Your task to perform on an android device: toggle javascript in the chrome app Image 0: 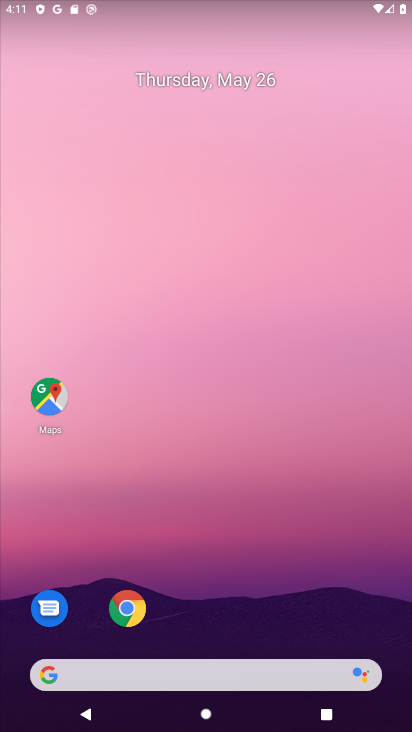
Step 0: drag from (280, 648) to (258, 117)
Your task to perform on an android device: toggle javascript in the chrome app Image 1: 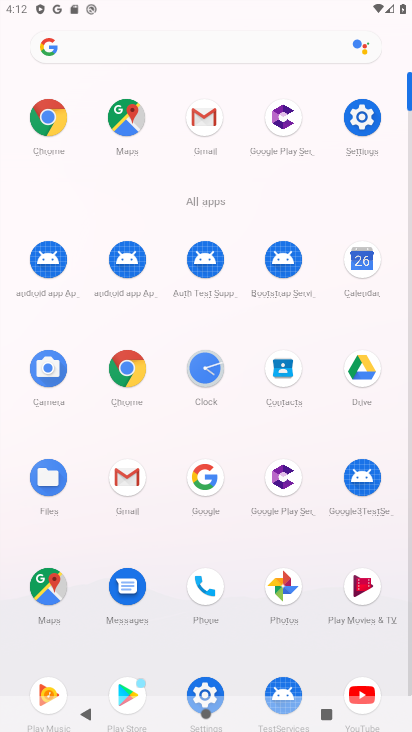
Step 1: click (132, 360)
Your task to perform on an android device: toggle javascript in the chrome app Image 2: 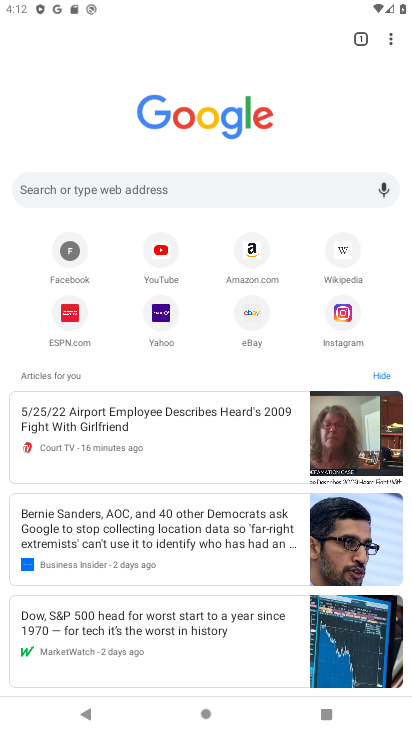
Step 2: click (395, 48)
Your task to perform on an android device: toggle javascript in the chrome app Image 3: 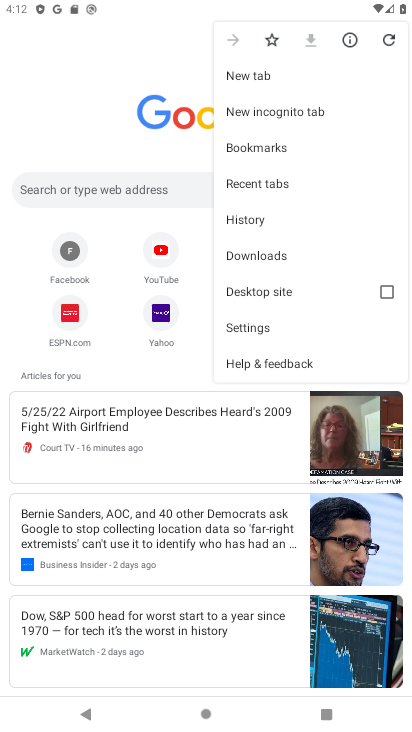
Step 3: click (264, 320)
Your task to perform on an android device: toggle javascript in the chrome app Image 4: 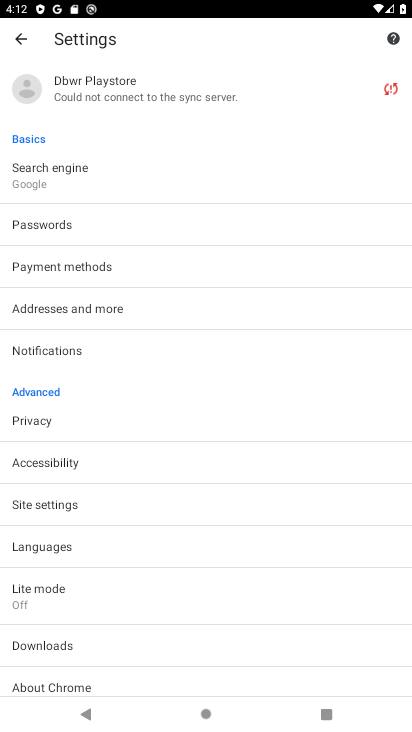
Step 4: click (48, 501)
Your task to perform on an android device: toggle javascript in the chrome app Image 5: 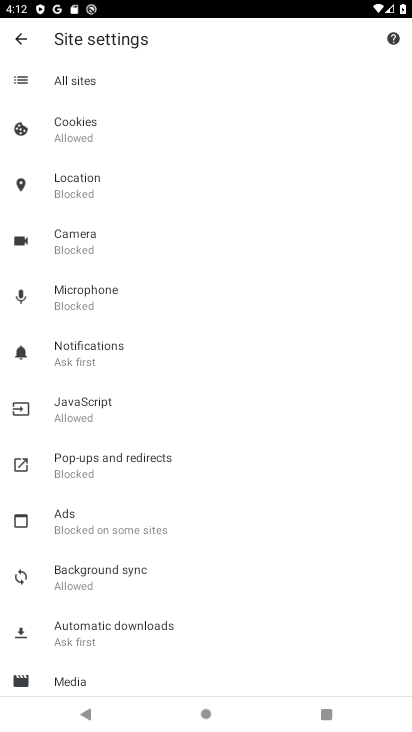
Step 5: click (110, 421)
Your task to perform on an android device: toggle javascript in the chrome app Image 6: 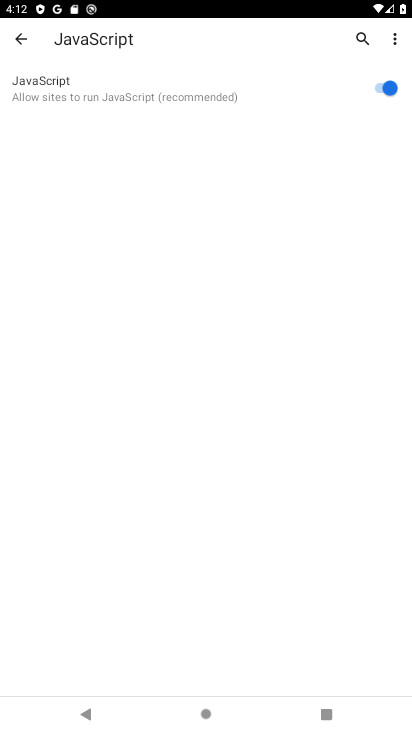
Step 6: task complete